Your task to perform on an android device: Open my contact list Image 0: 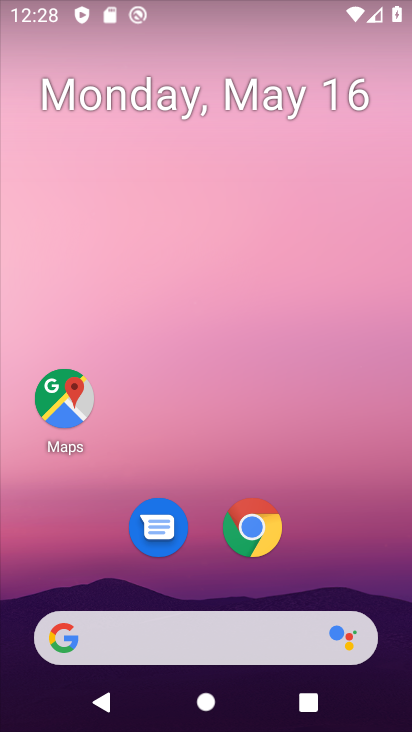
Step 0: press home button
Your task to perform on an android device: Open my contact list Image 1: 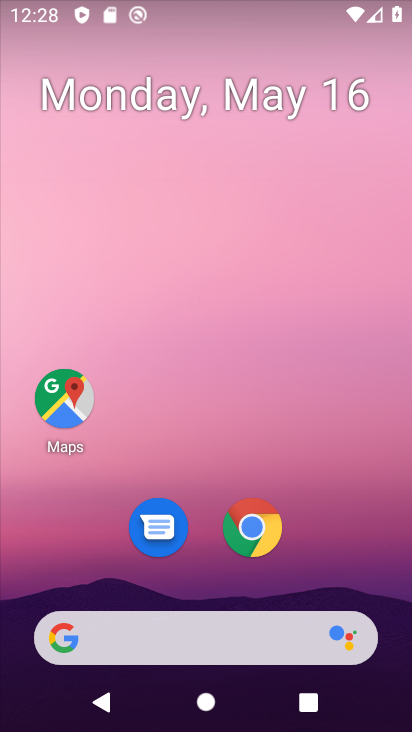
Step 1: drag from (163, 634) to (336, 74)
Your task to perform on an android device: Open my contact list Image 2: 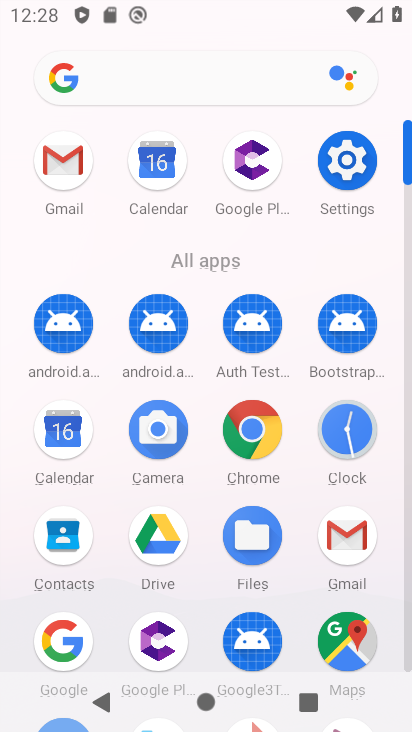
Step 2: click (51, 552)
Your task to perform on an android device: Open my contact list Image 3: 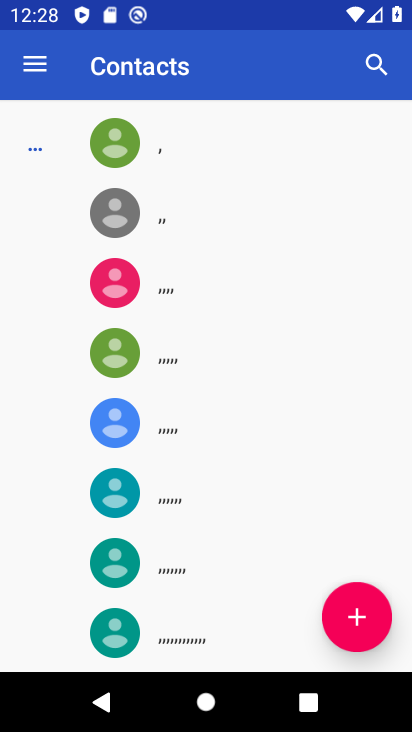
Step 3: task complete